Your task to perform on an android device: choose inbox layout in the gmail app Image 0: 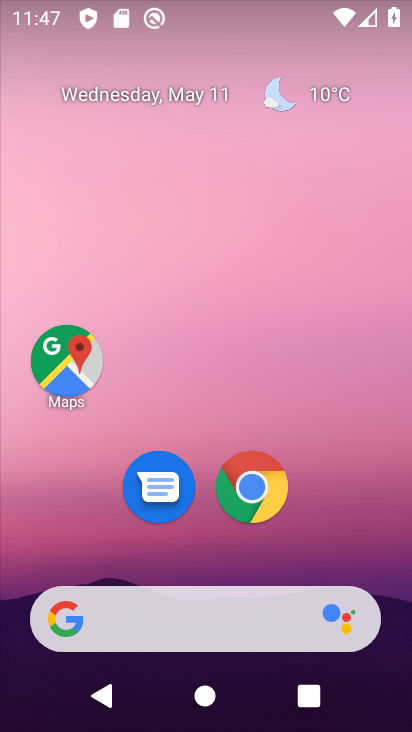
Step 0: drag from (376, 534) to (324, 77)
Your task to perform on an android device: choose inbox layout in the gmail app Image 1: 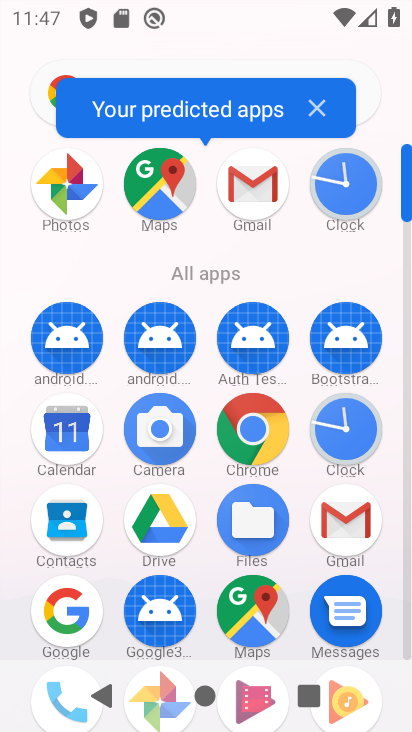
Step 1: click (407, 650)
Your task to perform on an android device: choose inbox layout in the gmail app Image 2: 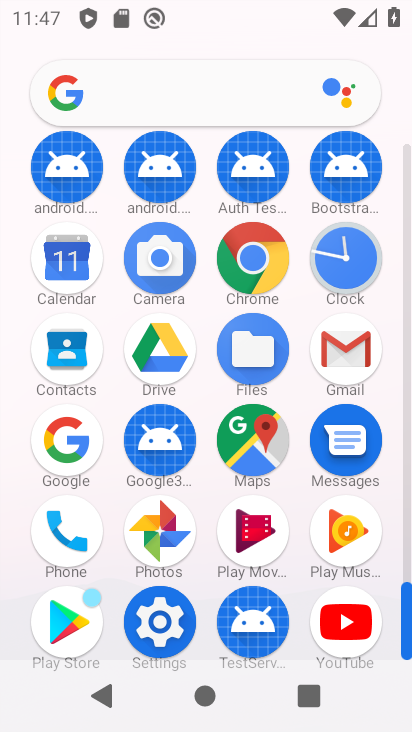
Step 2: click (348, 351)
Your task to perform on an android device: choose inbox layout in the gmail app Image 3: 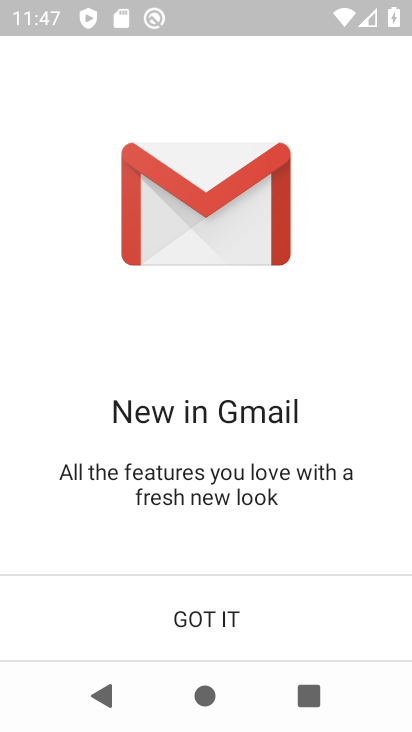
Step 3: click (311, 465)
Your task to perform on an android device: choose inbox layout in the gmail app Image 4: 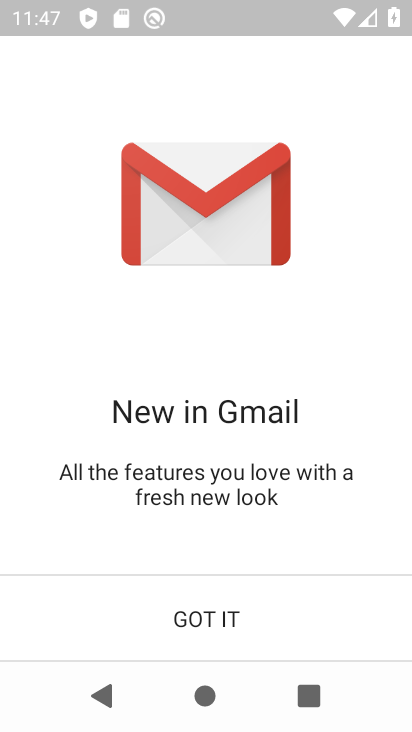
Step 4: click (224, 624)
Your task to perform on an android device: choose inbox layout in the gmail app Image 5: 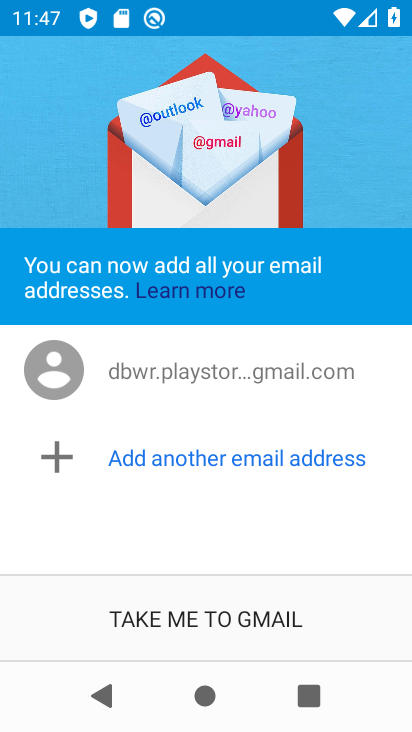
Step 5: click (188, 629)
Your task to perform on an android device: choose inbox layout in the gmail app Image 6: 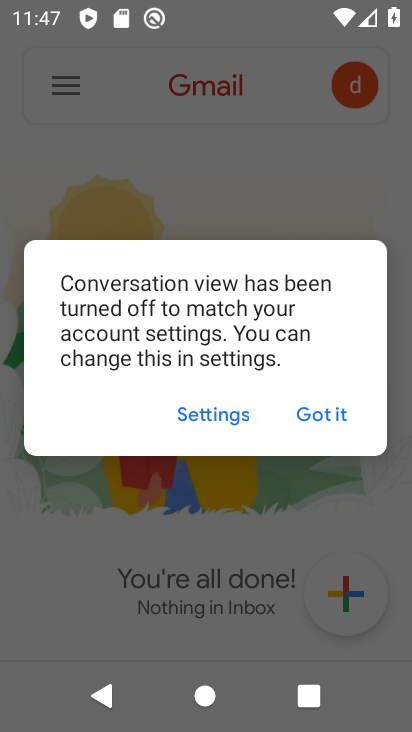
Step 6: click (313, 414)
Your task to perform on an android device: choose inbox layout in the gmail app Image 7: 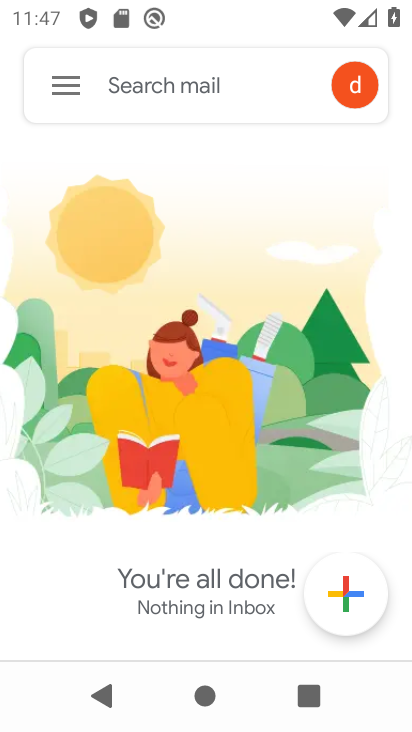
Step 7: click (62, 88)
Your task to perform on an android device: choose inbox layout in the gmail app Image 8: 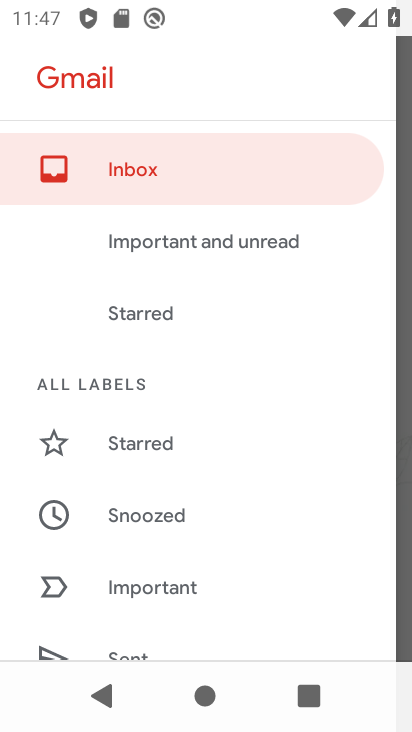
Step 8: drag from (224, 595) to (314, 30)
Your task to perform on an android device: choose inbox layout in the gmail app Image 9: 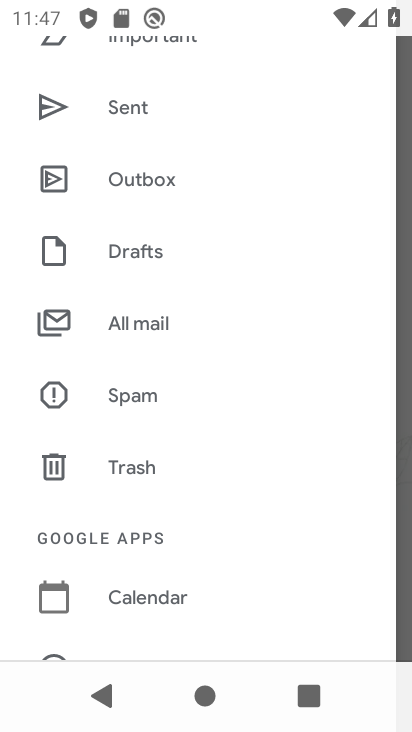
Step 9: drag from (232, 600) to (265, 64)
Your task to perform on an android device: choose inbox layout in the gmail app Image 10: 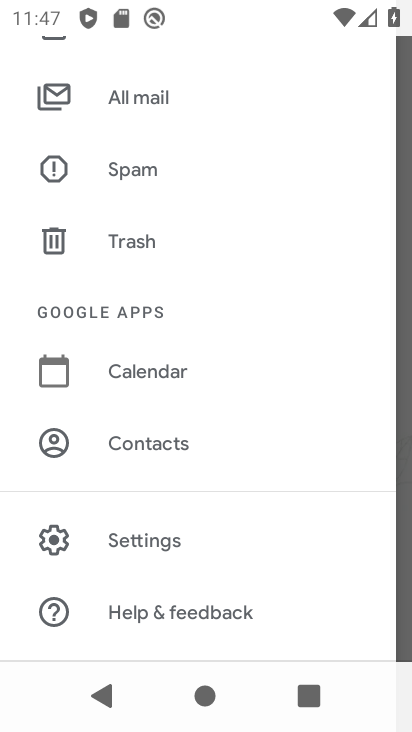
Step 10: click (112, 539)
Your task to perform on an android device: choose inbox layout in the gmail app Image 11: 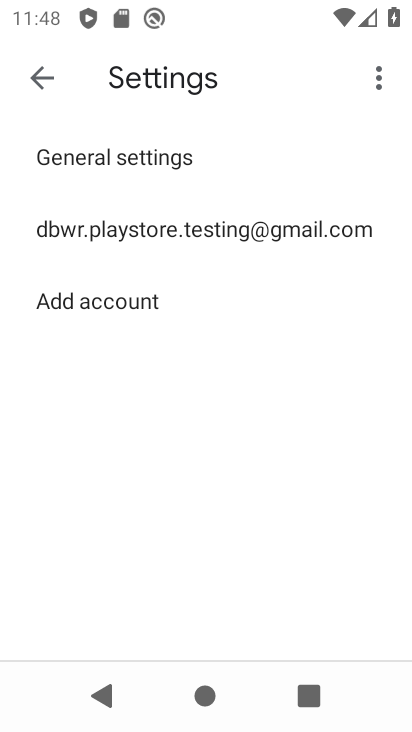
Step 11: click (166, 229)
Your task to perform on an android device: choose inbox layout in the gmail app Image 12: 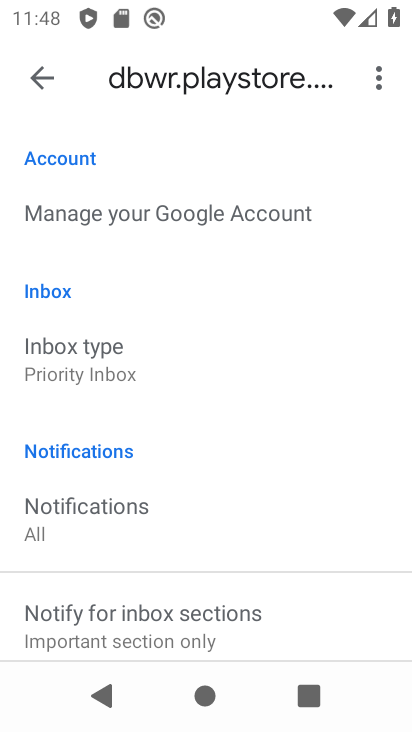
Step 12: click (69, 352)
Your task to perform on an android device: choose inbox layout in the gmail app Image 13: 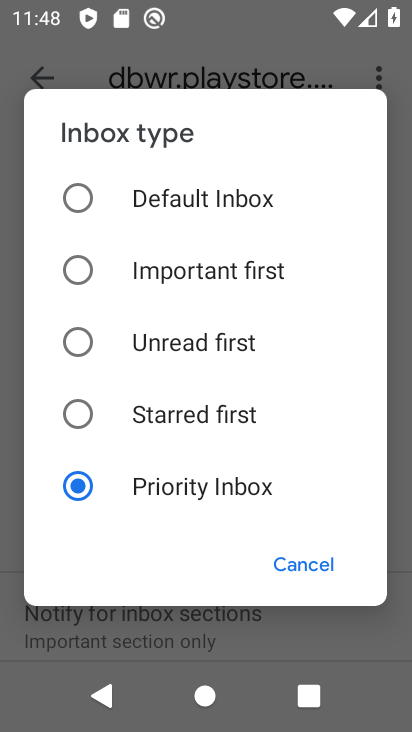
Step 13: click (81, 195)
Your task to perform on an android device: choose inbox layout in the gmail app Image 14: 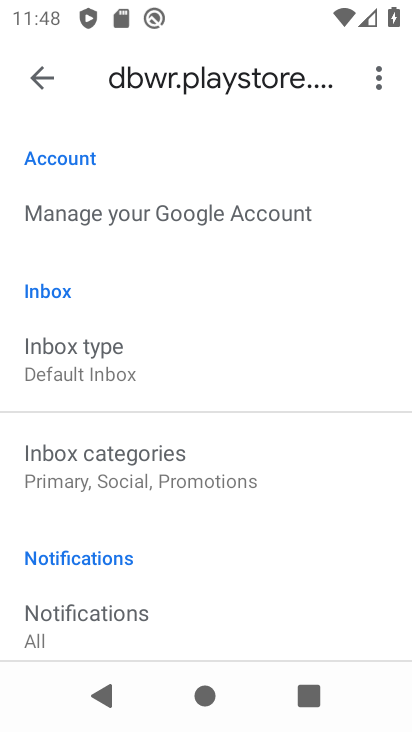
Step 14: task complete